Your task to perform on an android device: Open calendar and show me the first week of next month Image 0: 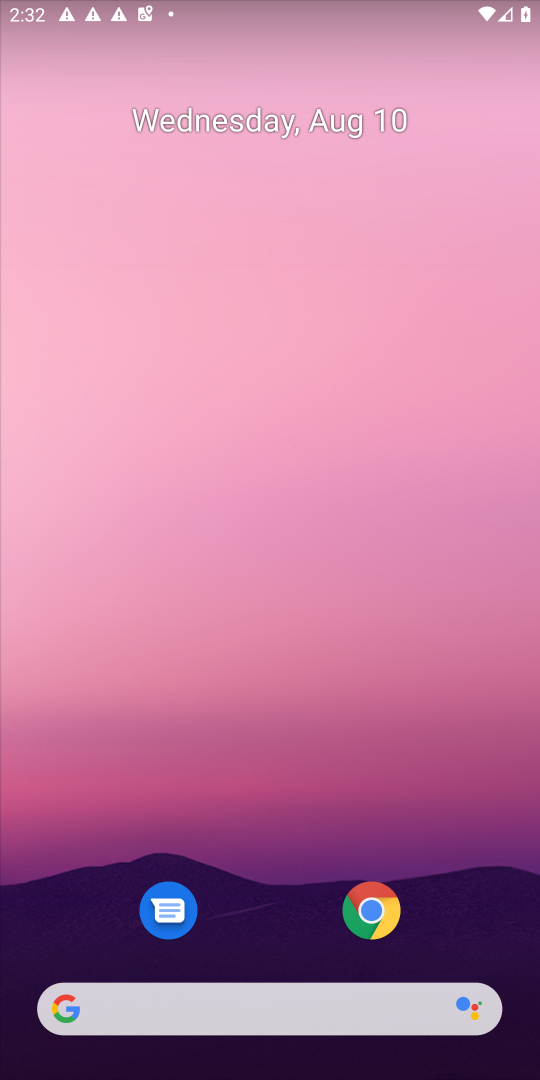
Step 0: drag from (298, 884) to (273, 106)
Your task to perform on an android device: Open calendar and show me the first week of next month Image 1: 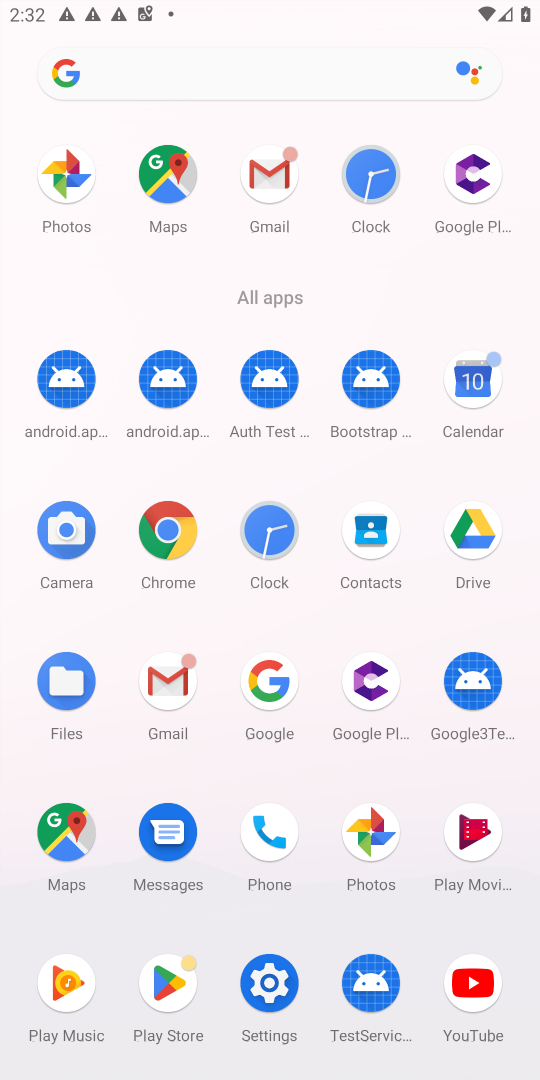
Step 1: click (467, 398)
Your task to perform on an android device: Open calendar and show me the first week of next month Image 2: 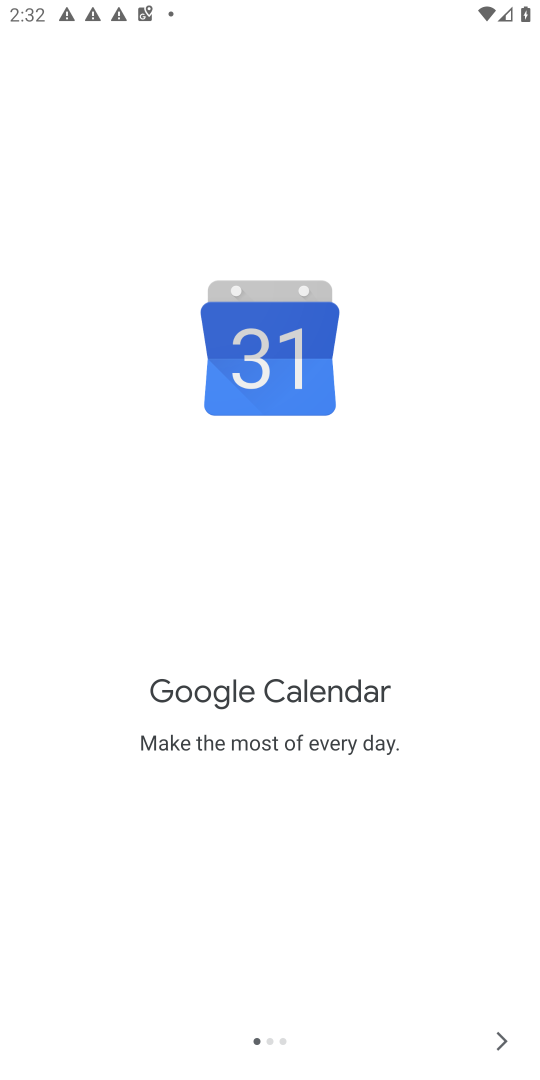
Step 2: click (495, 1031)
Your task to perform on an android device: Open calendar and show me the first week of next month Image 3: 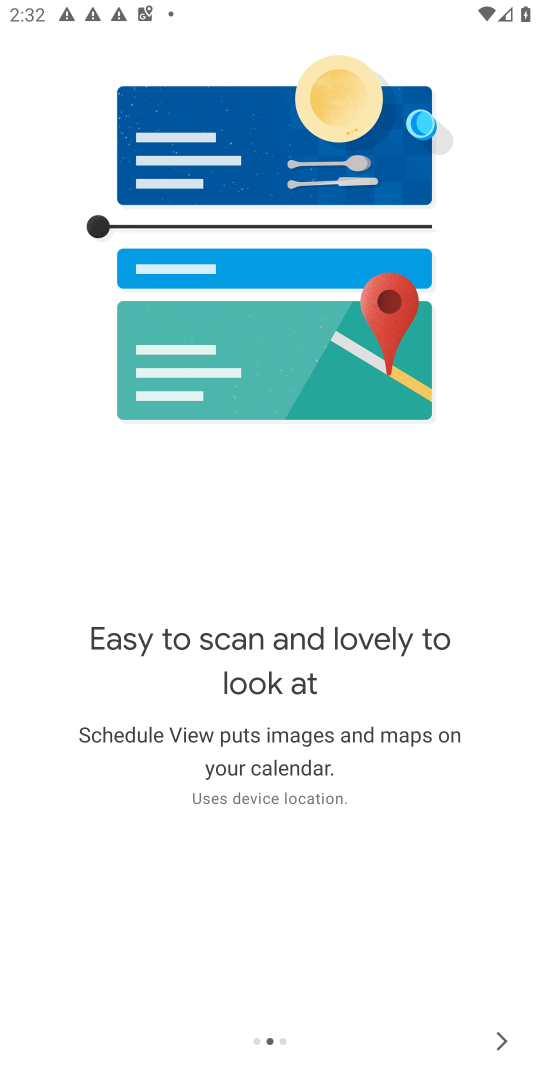
Step 3: click (495, 1031)
Your task to perform on an android device: Open calendar and show me the first week of next month Image 4: 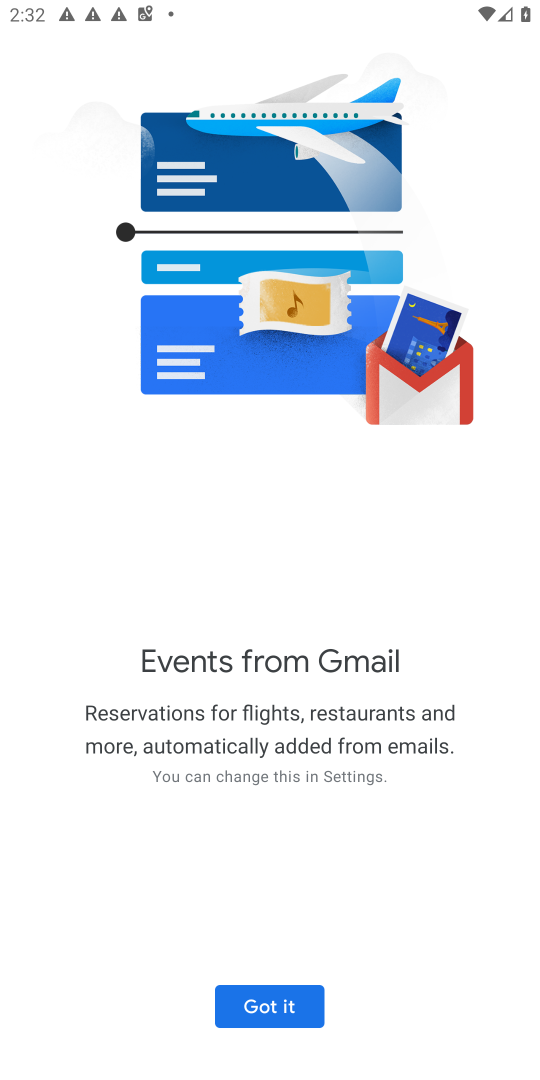
Step 4: click (237, 997)
Your task to perform on an android device: Open calendar and show me the first week of next month Image 5: 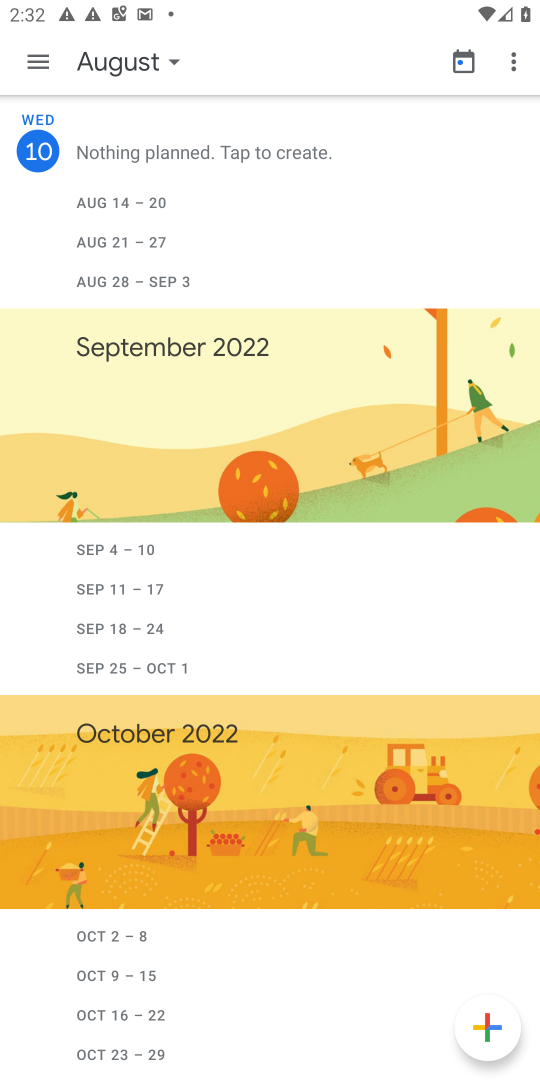
Step 5: click (95, 548)
Your task to perform on an android device: Open calendar and show me the first week of next month Image 6: 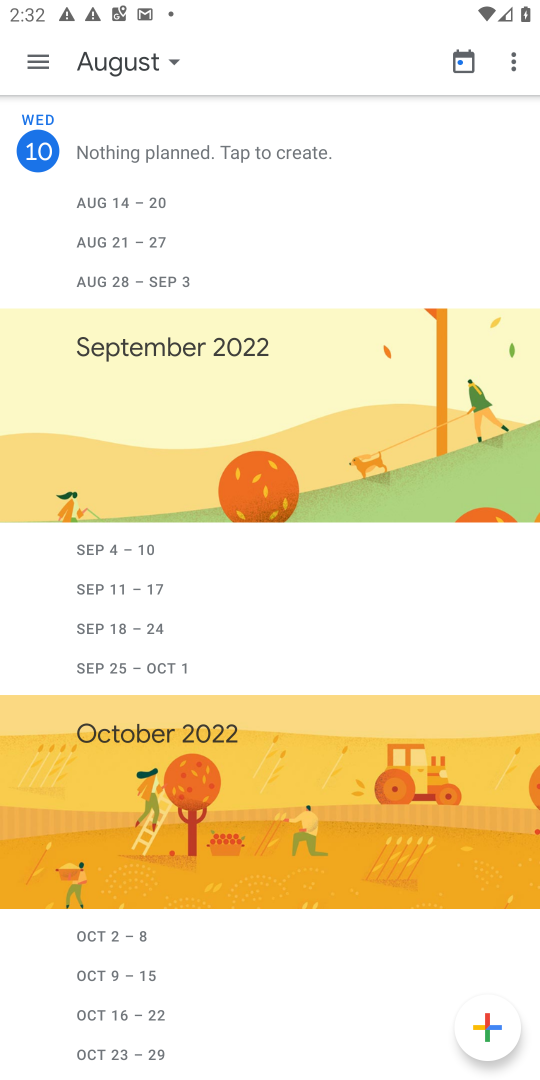
Step 6: click (95, 548)
Your task to perform on an android device: Open calendar and show me the first week of next month Image 7: 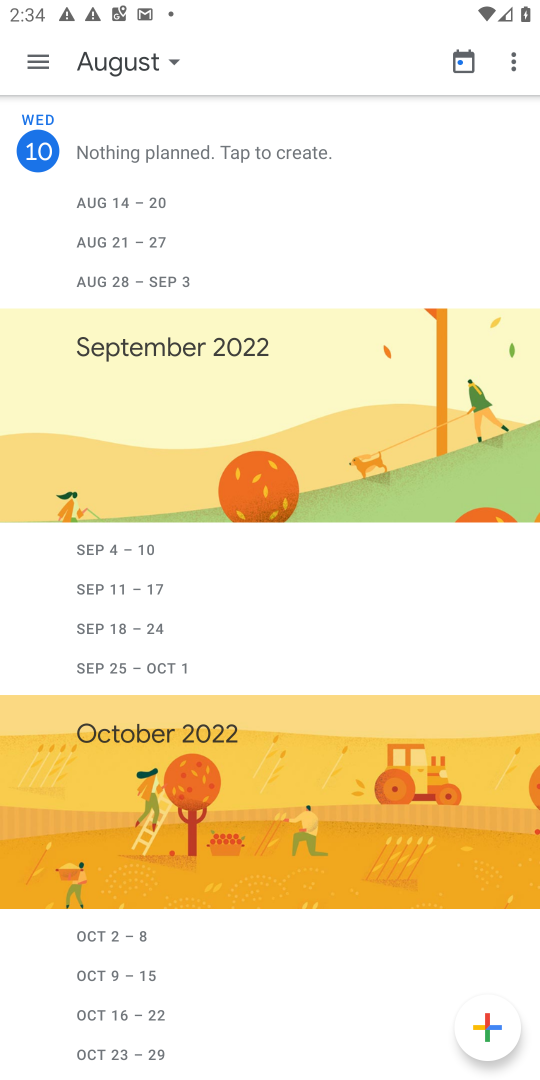
Step 7: click (95, 548)
Your task to perform on an android device: Open calendar and show me the first week of next month Image 8: 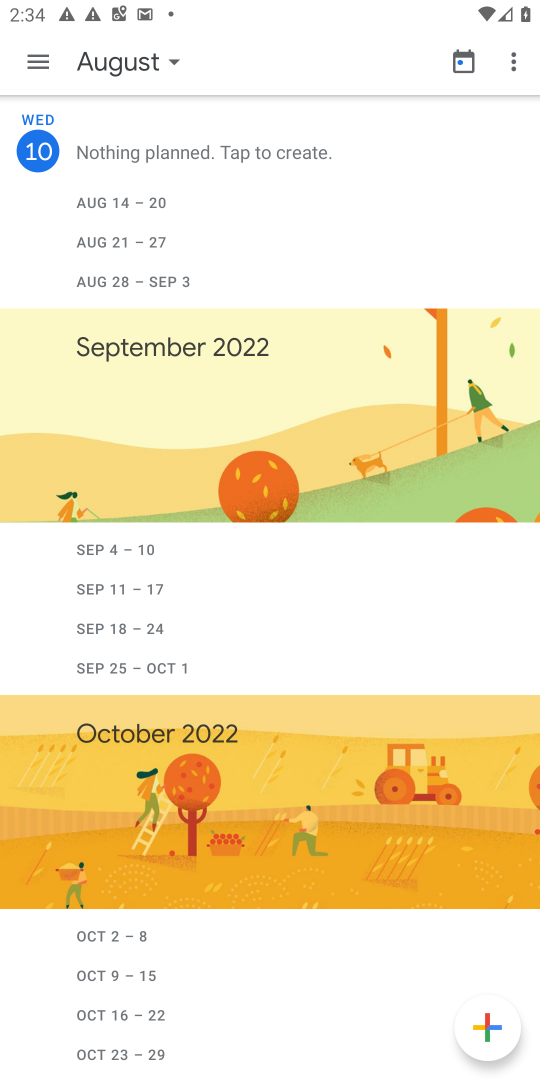
Step 8: click (182, 335)
Your task to perform on an android device: Open calendar and show me the first week of next month Image 9: 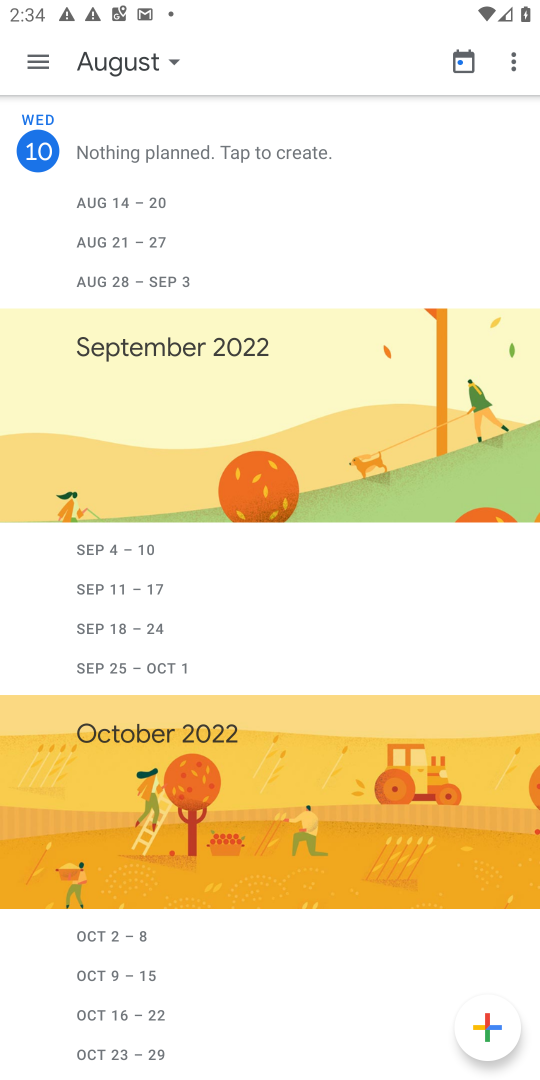
Step 9: click (180, 355)
Your task to perform on an android device: Open calendar and show me the first week of next month Image 10: 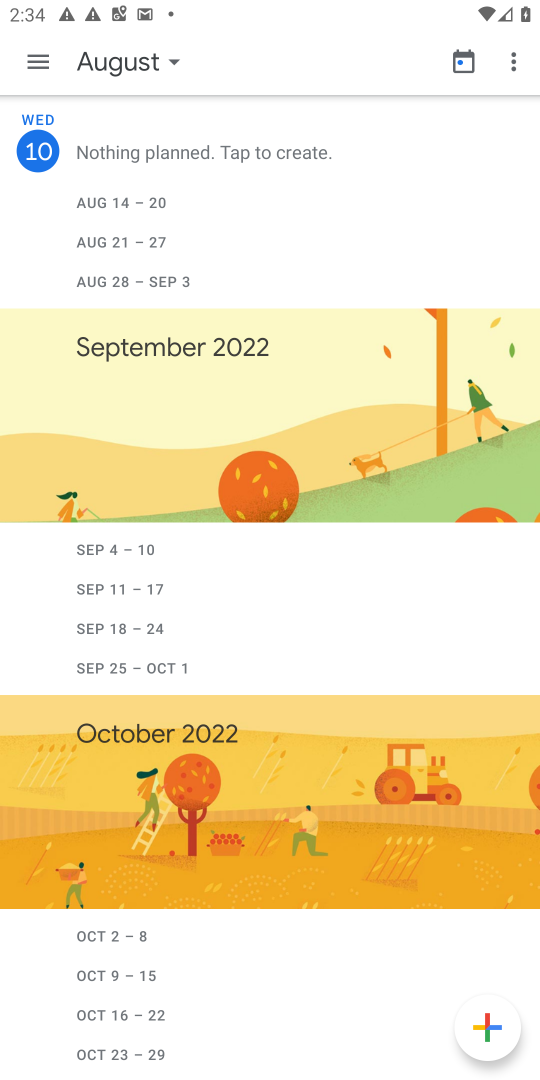
Step 10: click (180, 355)
Your task to perform on an android device: Open calendar and show me the first week of next month Image 11: 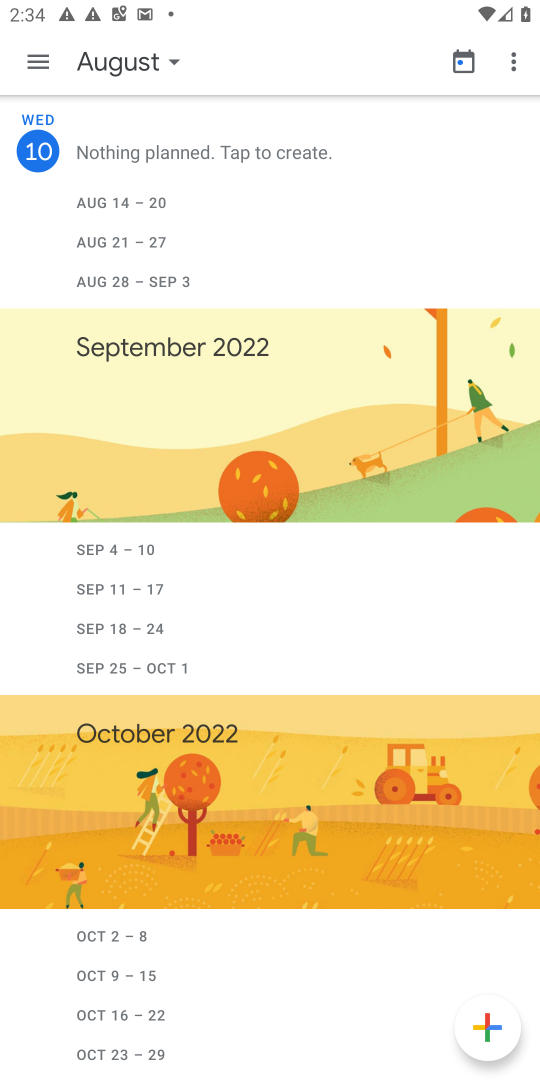
Step 11: click (180, 355)
Your task to perform on an android device: Open calendar and show me the first week of next month Image 12: 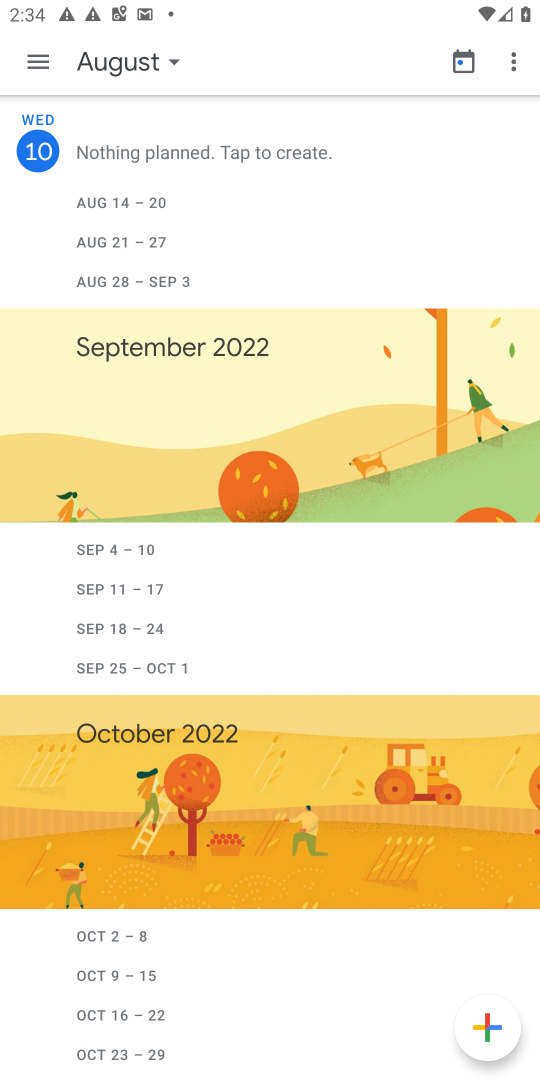
Step 12: drag from (397, 323) to (216, 344)
Your task to perform on an android device: Open calendar and show me the first week of next month Image 13: 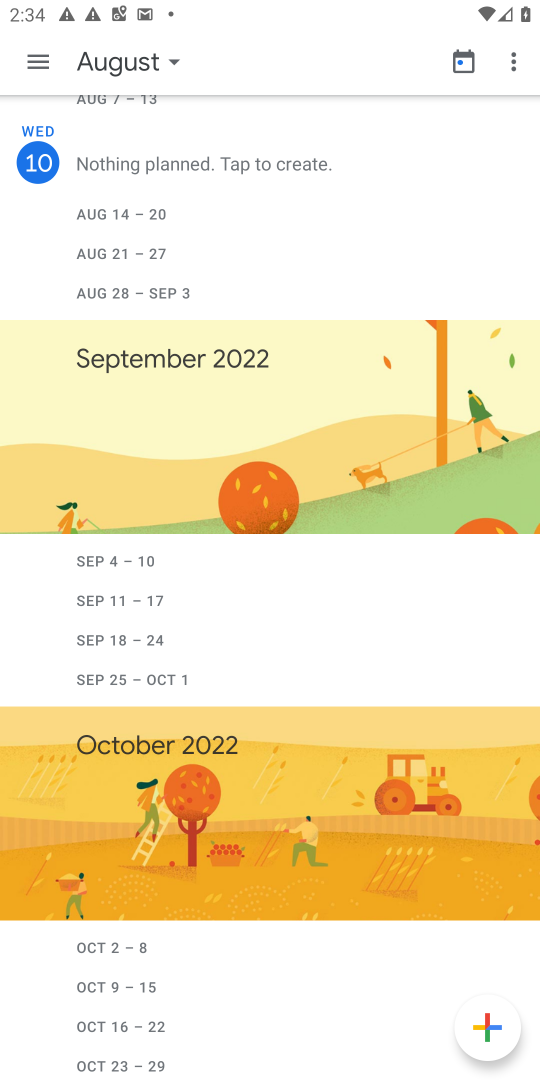
Step 13: click (216, 344)
Your task to perform on an android device: Open calendar and show me the first week of next month Image 14: 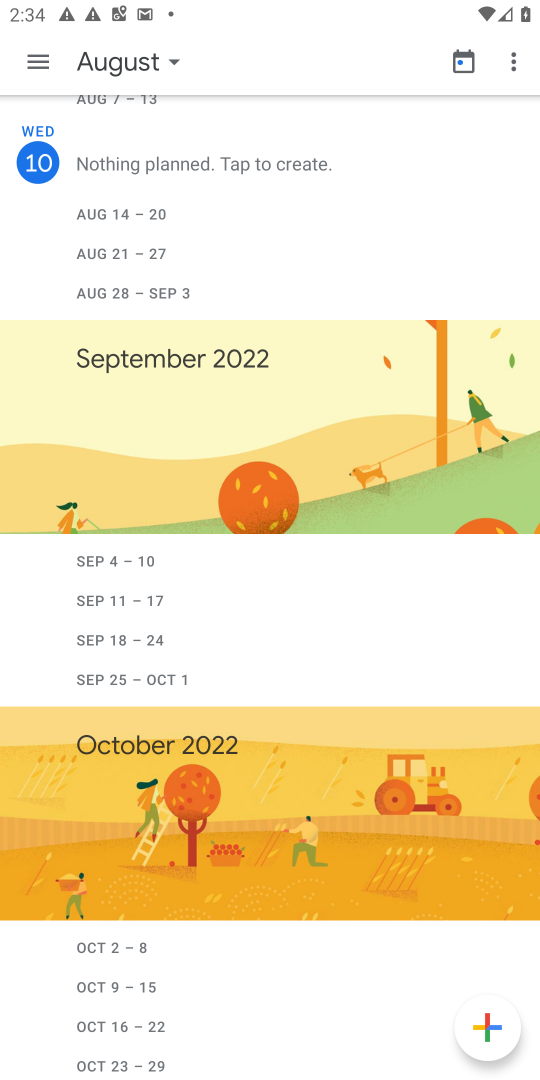
Step 14: task complete